Your task to perform on an android device: clear history in the chrome app Image 0: 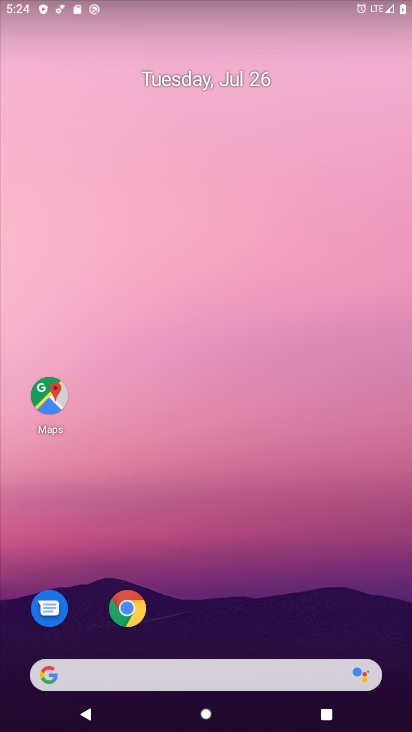
Step 0: drag from (353, 518) to (248, 17)
Your task to perform on an android device: clear history in the chrome app Image 1: 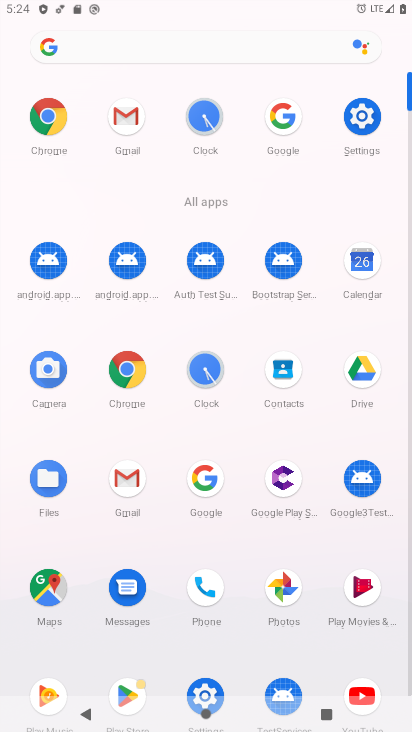
Step 1: click (104, 384)
Your task to perform on an android device: clear history in the chrome app Image 2: 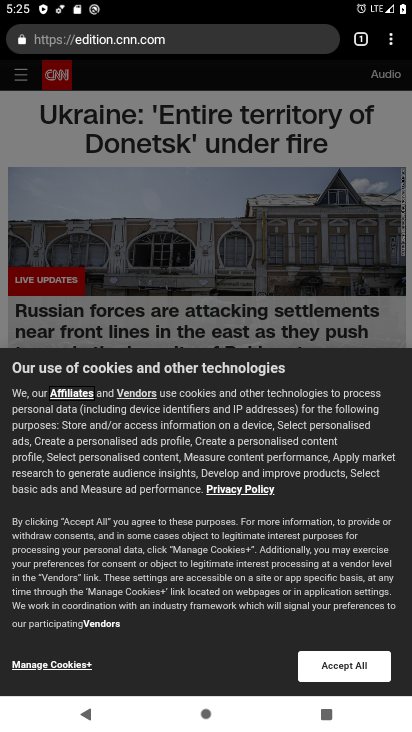
Step 2: click (389, 40)
Your task to perform on an android device: clear history in the chrome app Image 3: 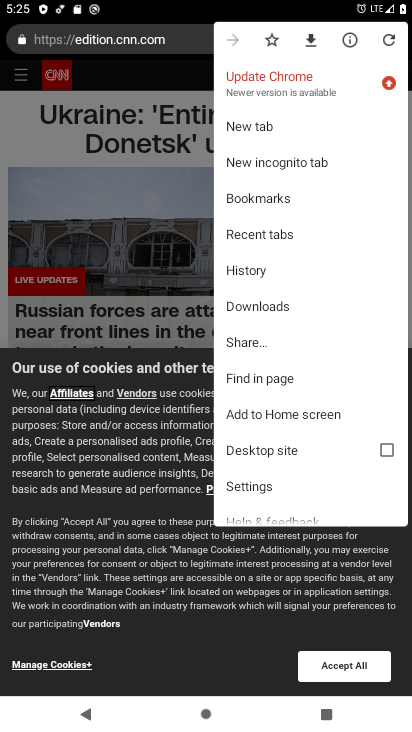
Step 3: click (261, 273)
Your task to perform on an android device: clear history in the chrome app Image 4: 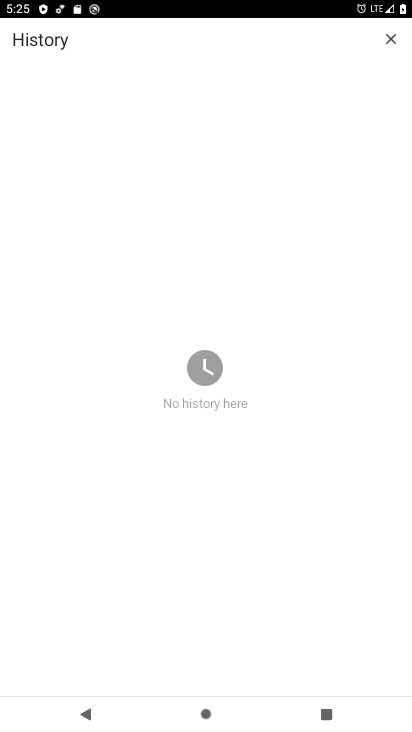
Step 4: task complete